Your task to perform on an android device: empty trash in google photos Image 0: 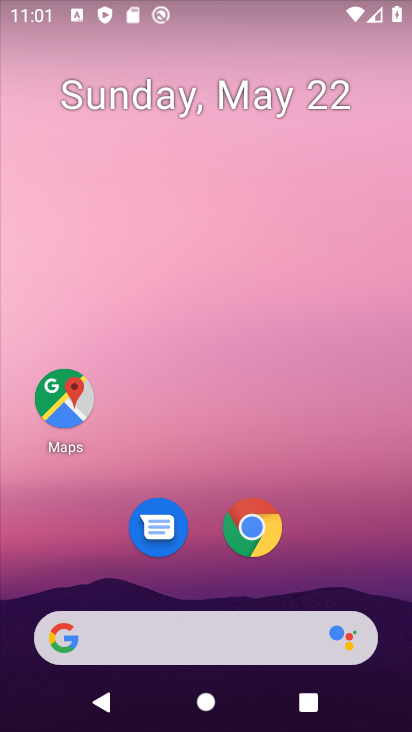
Step 0: click (220, 494)
Your task to perform on an android device: empty trash in google photos Image 1: 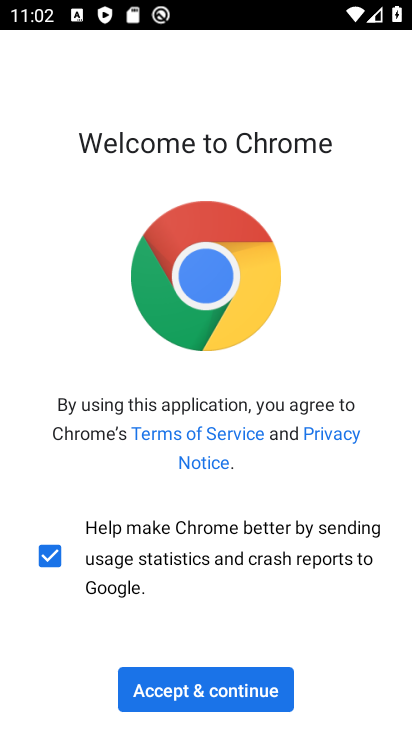
Step 1: press home button
Your task to perform on an android device: empty trash in google photos Image 2: 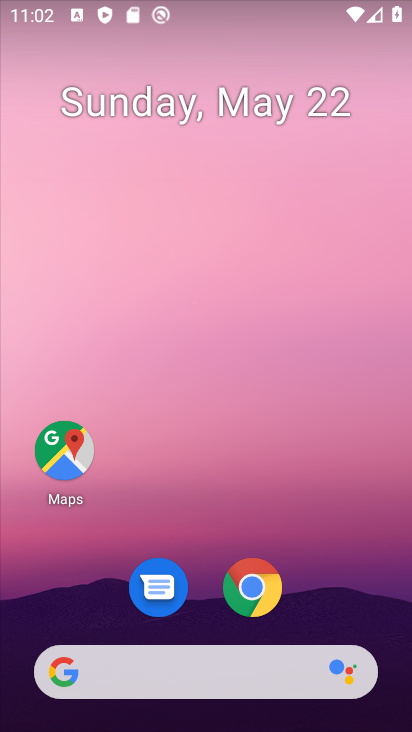
Step 2: drag from (215, 471) to (220, 39)
Your task to perform on an android device: empty trash in google photos Image 3: 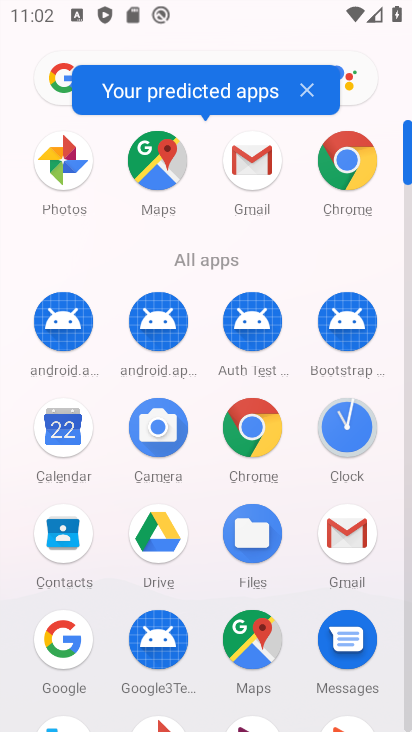
Step 3: click (51, 160)
Your task to perform on an android device: empty trash in google photos Image 4: 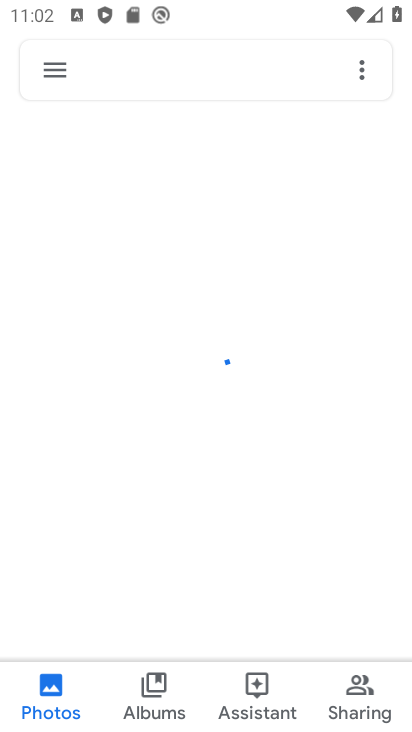
Step 4: click (61, 68)
Your task to perform on an android device: empty trash in google photos Image 5: 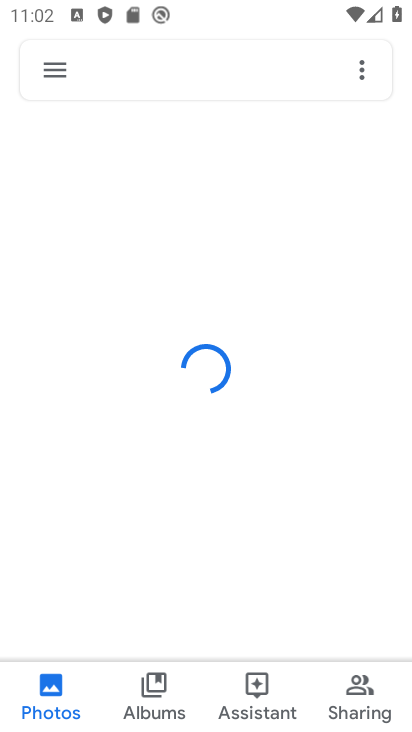
Step 5: click (61, 65)
Your task to perform on an android device: empty trash in google photos Image 6: 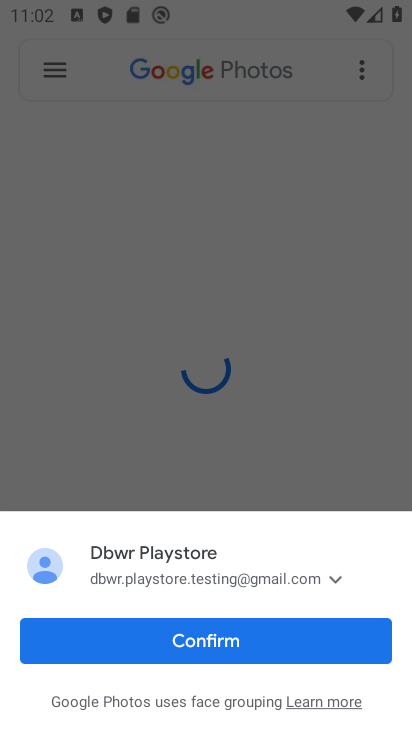
Step 6: click (47, 68)
Your task to perform on an android device: empty trash in google photos Image 7: 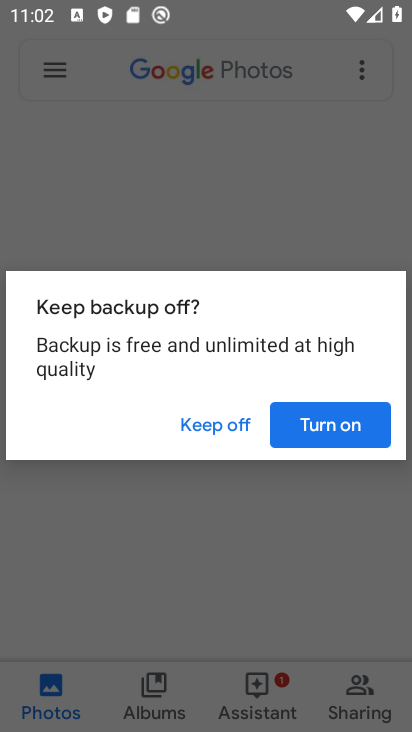
Step 7: click (229, 420)
Your task to perform on an android device: empty trash in google photos Image 8: 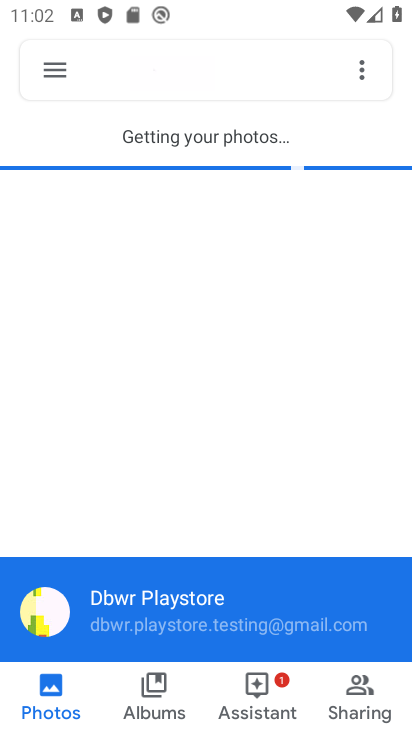
Step 8: drag from (236, 590) to (235, 287)
Your task to perform on an android device: empty trash in google photos Image 9: 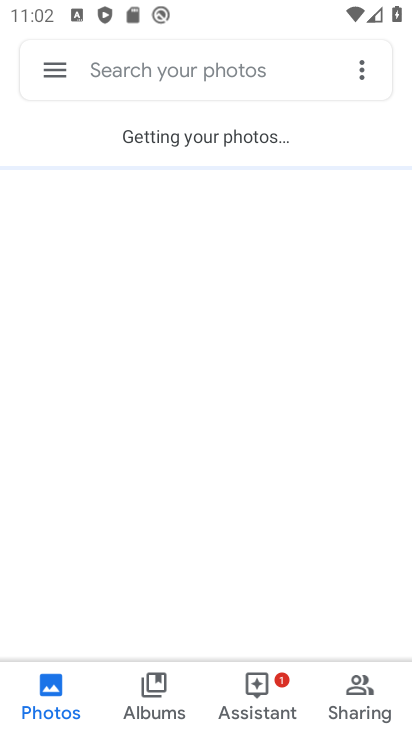
Step 9: click (53, 70)
Your task to perform on an android device: empty trash in google photos Image 10: 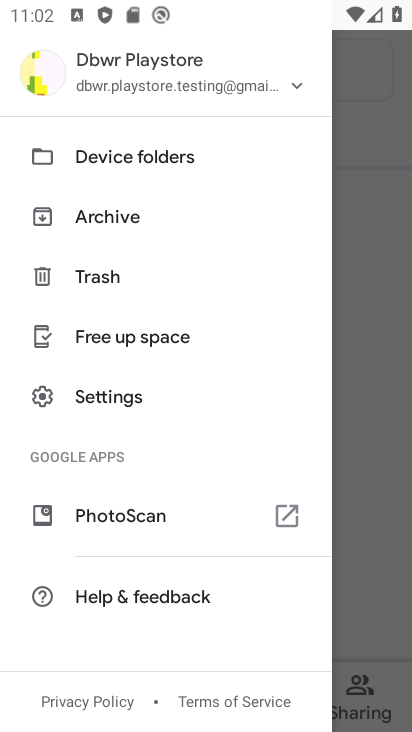
Step 10: click (100, 281)
Your task to perform on an android device: empty trash in google photos Image 11: 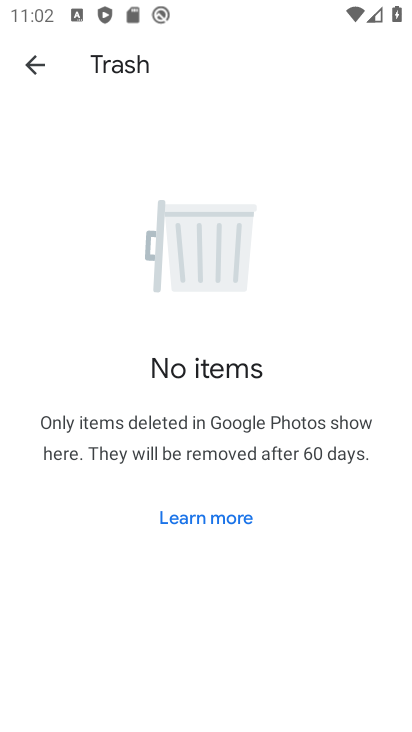
Step 11: task complete